Your task to perform on an android device: turn on location history Image 0: 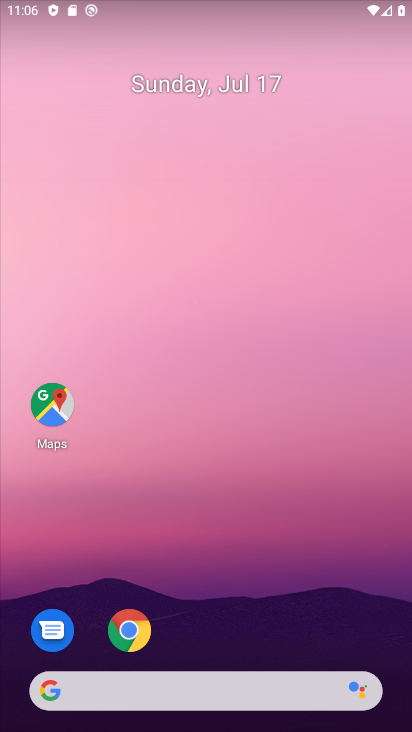
Step 0: drag from (202, 661) to (195, 413)
Your task to perform on an android device: turn on location history Image 1: 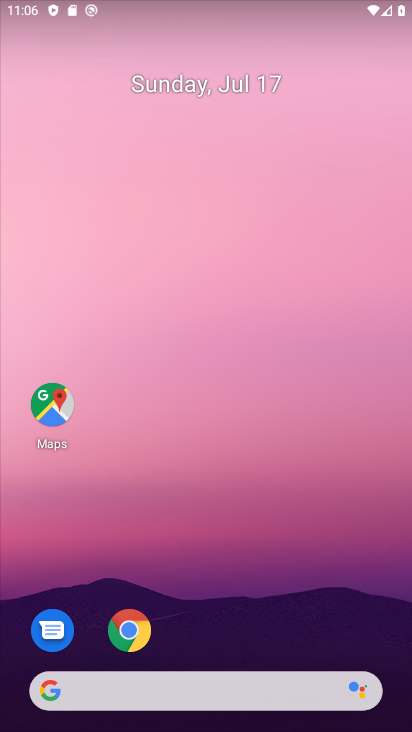
Step 1: drag from (225, 630) to (201, 3)
Your task to perform on an android device: turn on location history Image 2: 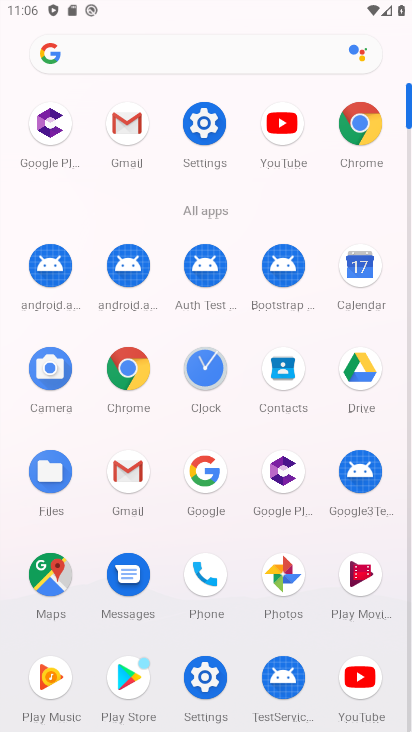
Step 2: click (210, 677)
Your task to perform on an android device: turn on location history Image 3: 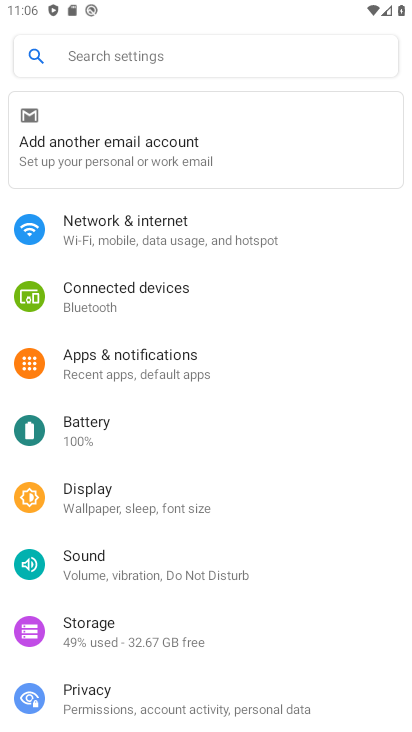
Step 3: drag from (129, 616) to (189, 170)
Your task to perform on an android device: turn on location history Image 4: 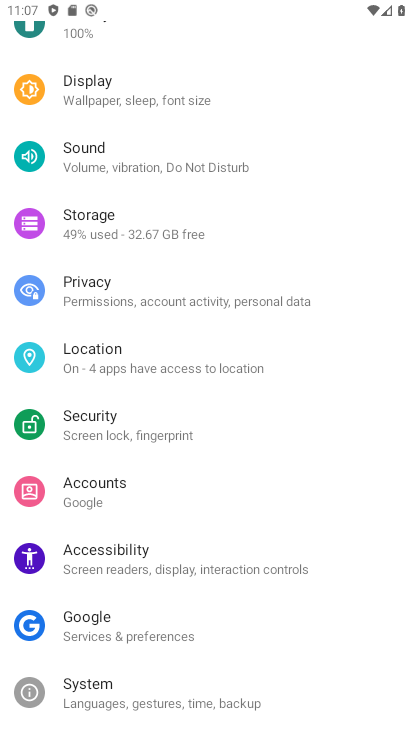
Step 4: click (128, 365)
Your task to perform on an android device: turn on location history Image 5: 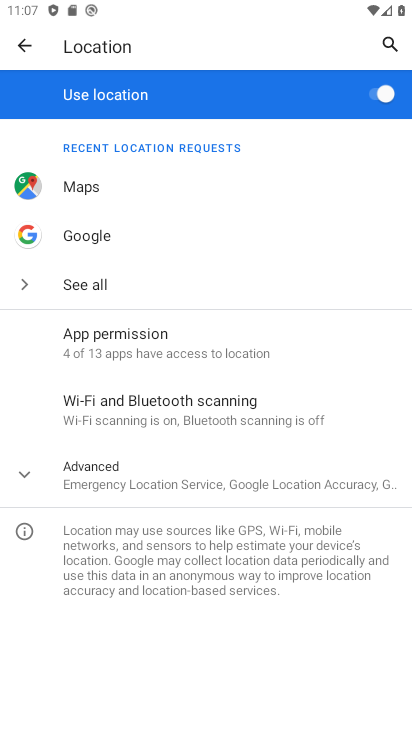
Step 5: click (149, 476)
Your task to perform on an android device: turn on location history Image 6: 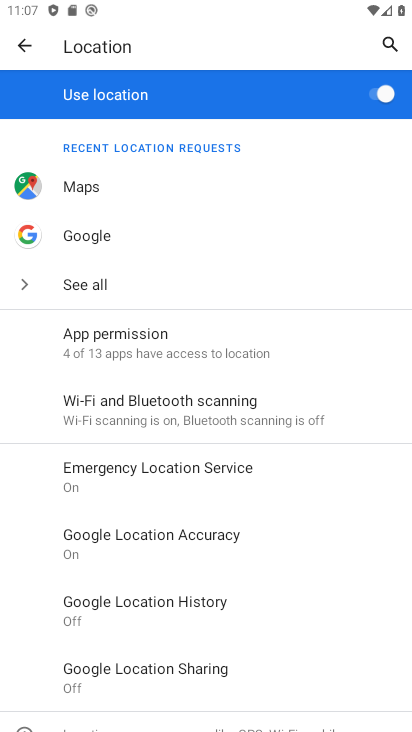
Step 6: click (151, 621)
Your task to perform on an android device: turn on location history Image 7: 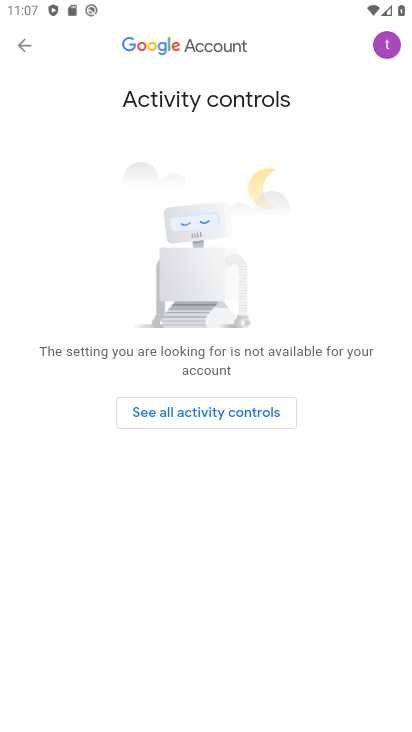
Step 7: click (243, 425)
Your task to perform on an android device: turn on location history Image 8: 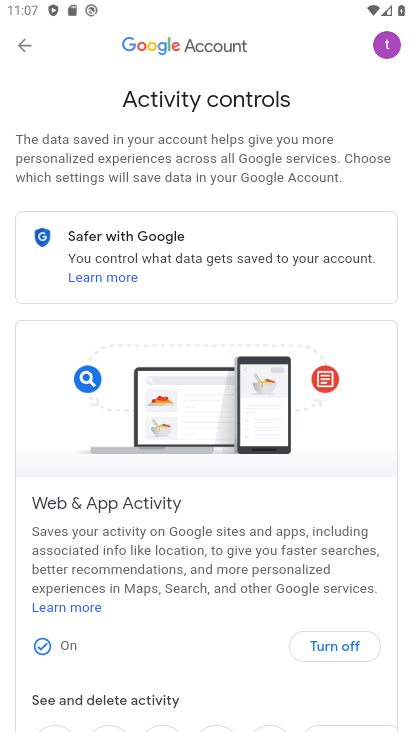
Step 8: task complete